Your task to perform on an android device: Open wifi settings Image 0: 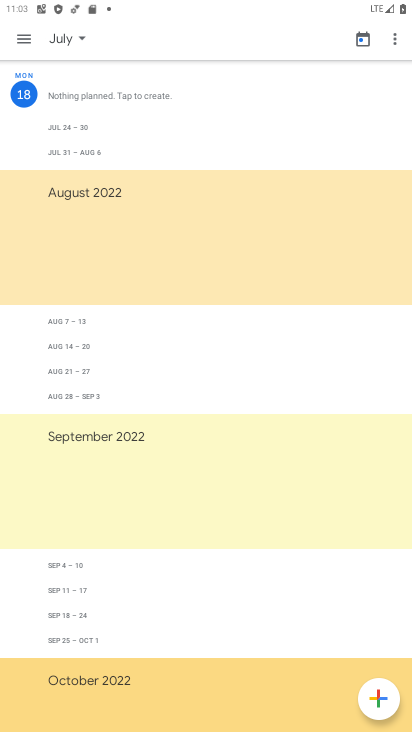
Step 0: press home button
Your task to perform on an android device: Open wifi settings Image 1: 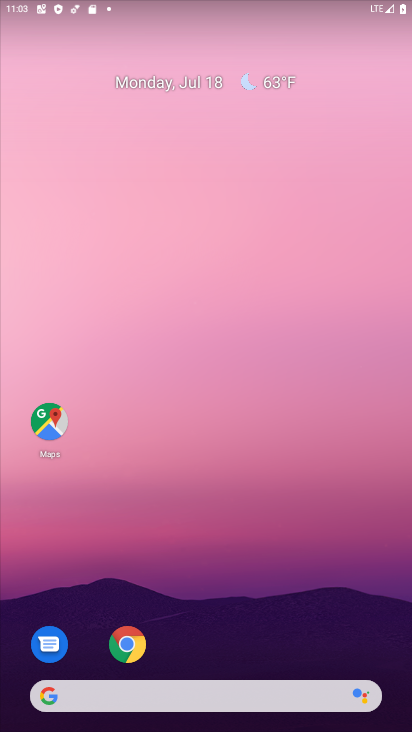
Step 1: drag from (264, 641) to (213, 60)
Your task to perform on an android device: Open wifi settings Image 2: 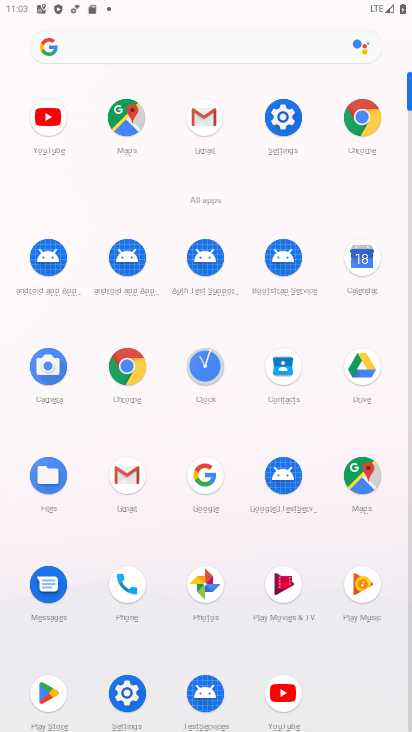
Step 2: click (274, 107)
Your task to perform on an android device: Open wifi settings Image 3: 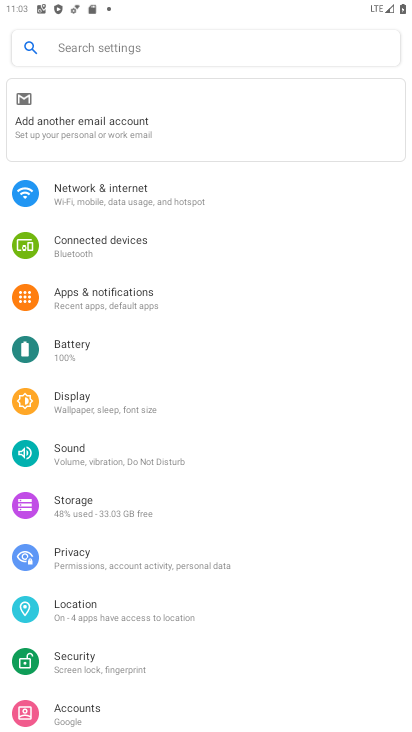
Step 3: click (144, 199)
Your task to perform on an android device: Open wifi settings Image 4: 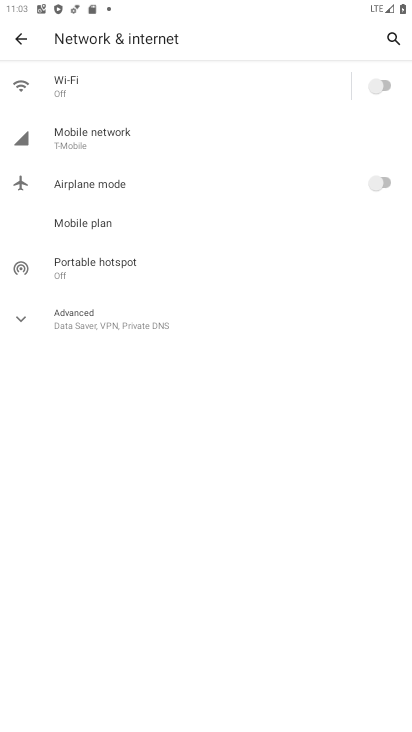
Step 4: click (64, 84)
Your task to perform on an android device: Open wifi settings Image 5: 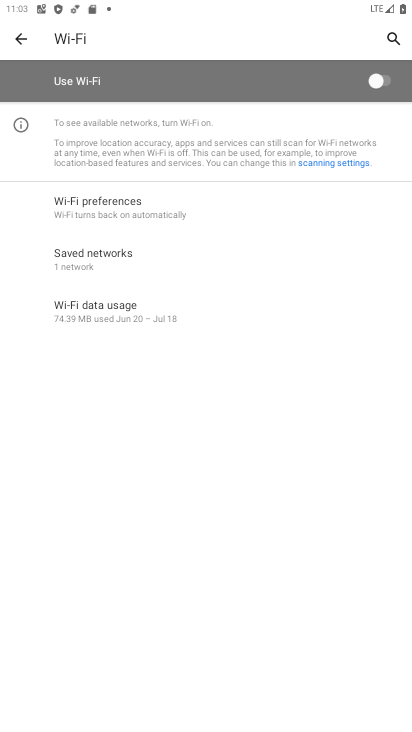
Step 5: task complete